Your task to perform on an android device: Search for a home improvement project you can do. Image 0: 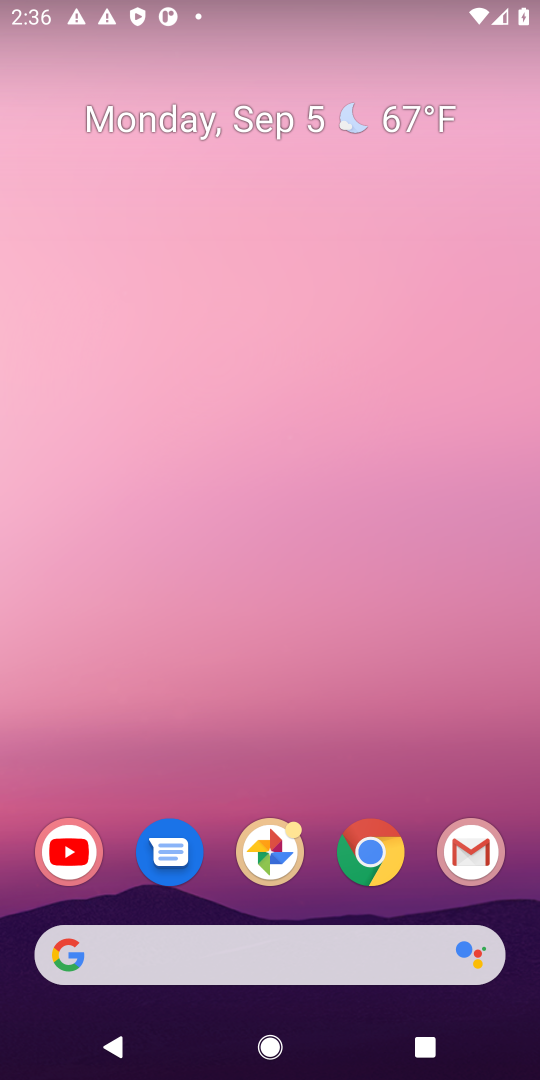
Step 0: click (376, 857)
Your task to perform on an android device: Search for a home improvement project you can do. Image 1: 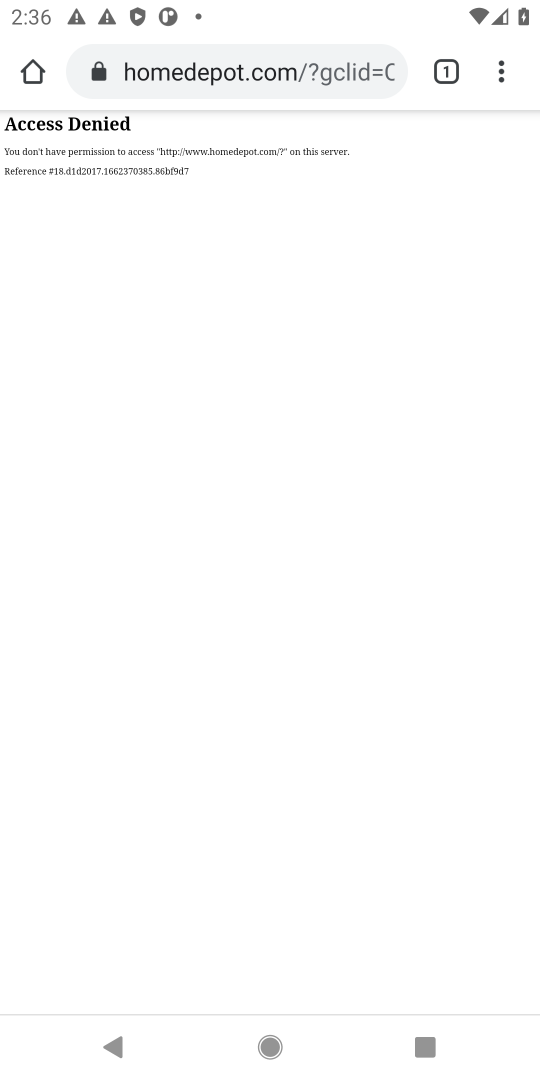
Step 1: click (269, 51)
Your task to perform on an android device: Search for a home improvement project you can do. Image 2: 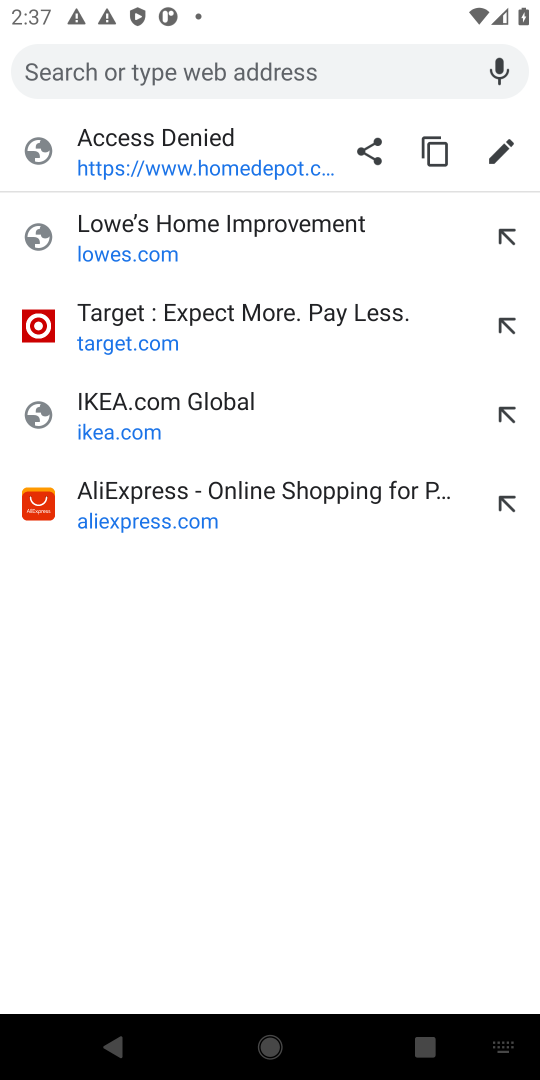
Step 2: type "home improvement project"
Your task to perform on an android device: Search for a home improvement project you can do. Image 3: 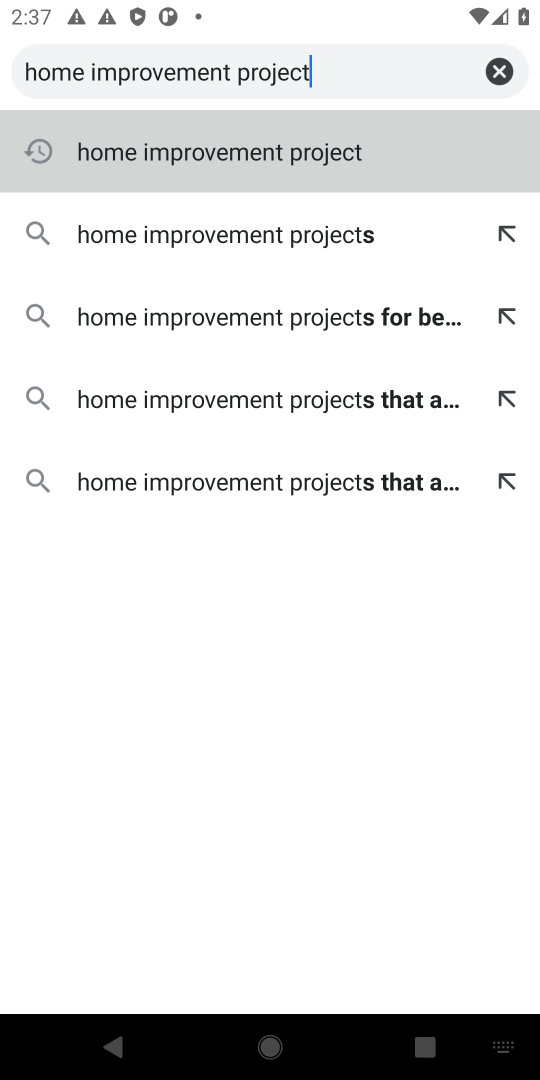
Step 3: click (156, 146)
Your task to perform on an android device: Search for a home improvement project you can do. Image 4: 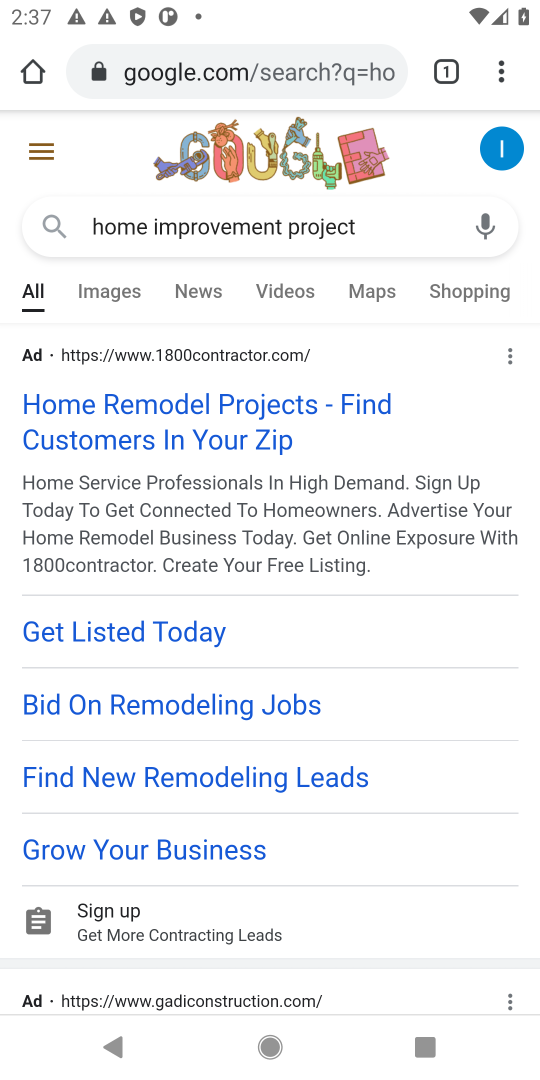
Step 4: drag from (290, 657) to (279, 107)
Your task to perform on an android device: Search for a home improvement project you can do. Image 5: 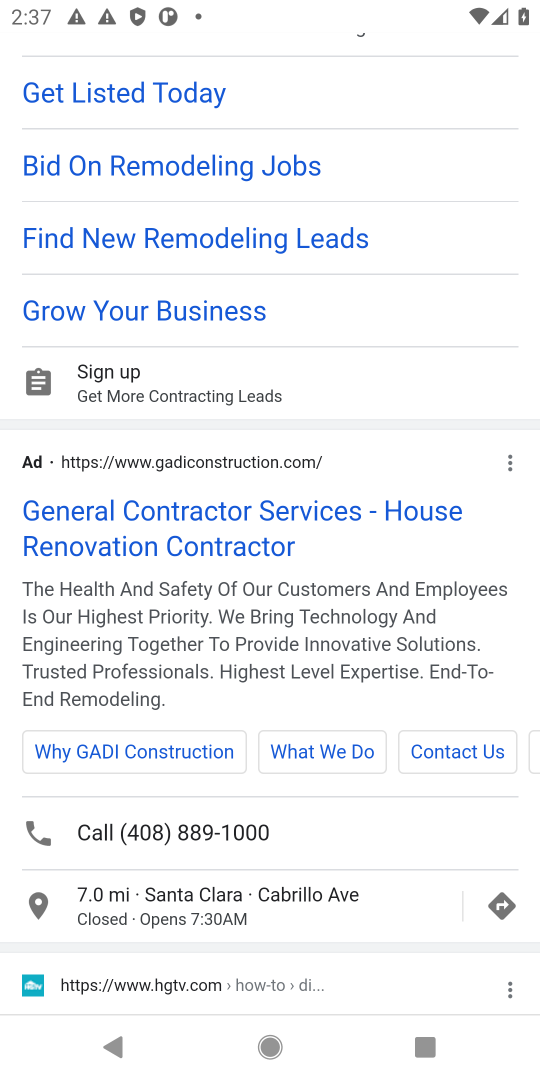
Step 5: drag from (229, 721) to (238, 141)
Your task to perform on an android device: Search for a home improvement project you can do. Image 6: 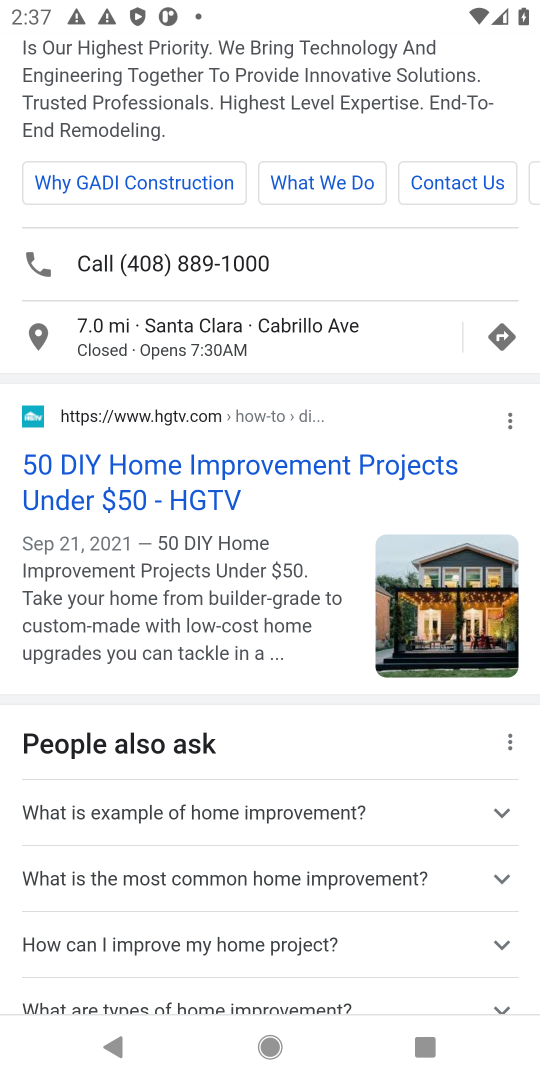
Step 6: click (167, 458)
Your task to perform on an android device: Search for a home improvement project you can do. Image 7: 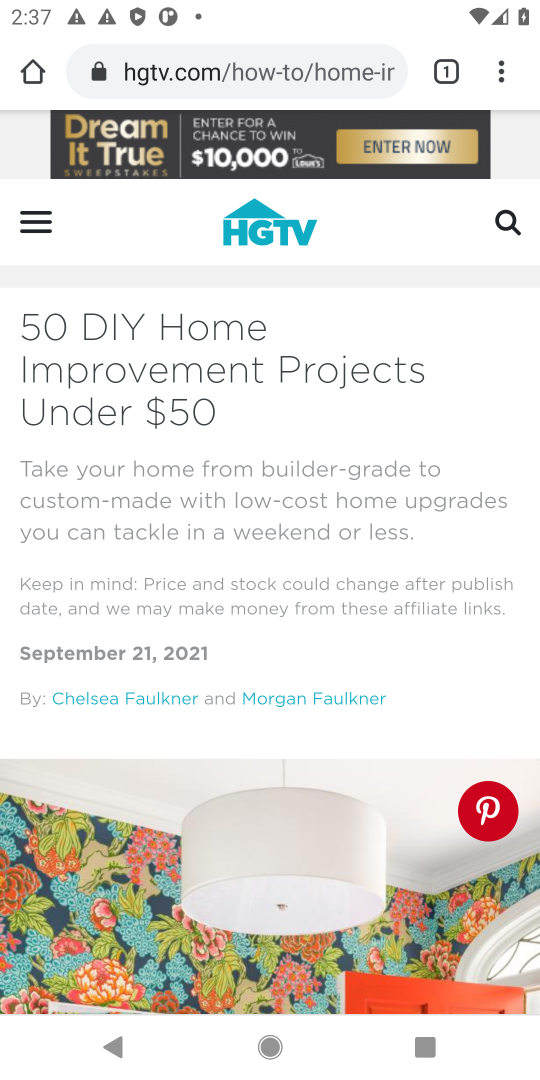
Step 7: drag from (440, 714) to (387, 192)
Your task to perform on an android device: Search for a home improvement project you can do. Image 8: 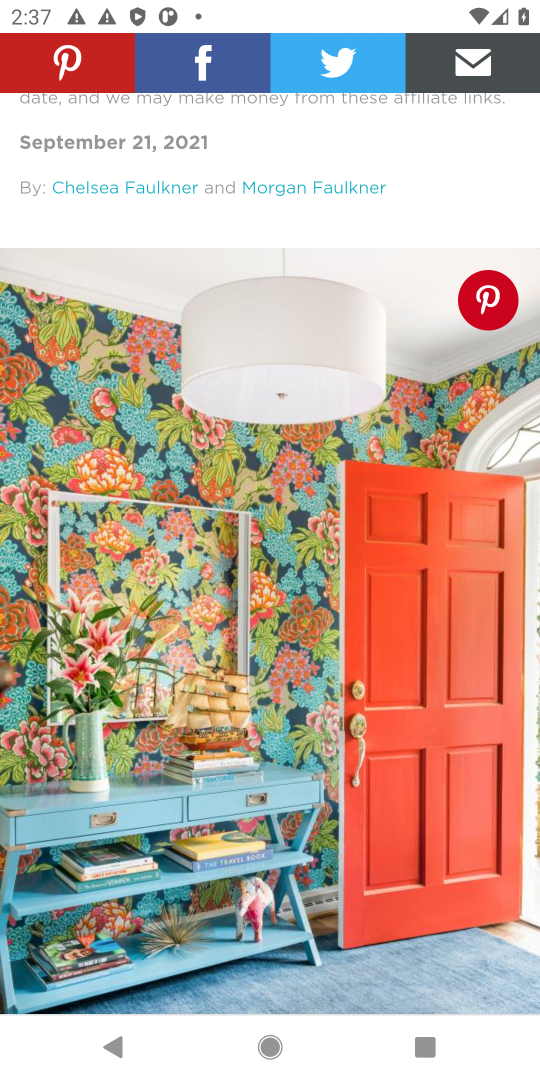
Step 8: drag from (336, 453) to (319, 133)
Your task to perform on an android device: Search for a home improvement project you can do. Image 9: 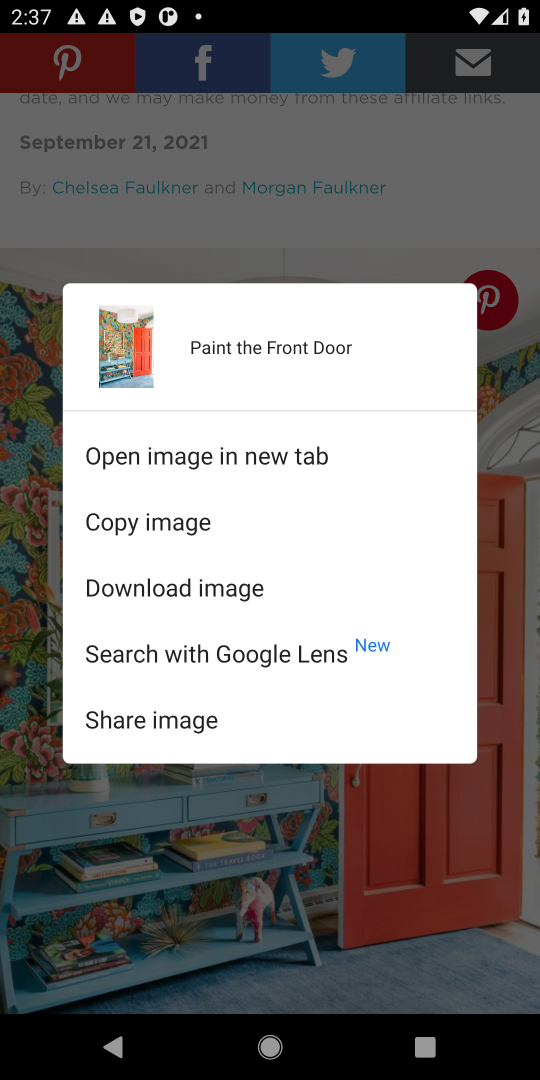
Step 9: click (365, 915)
Your task to perform on an android device: Search for a home improvement project you can do. Image 10: 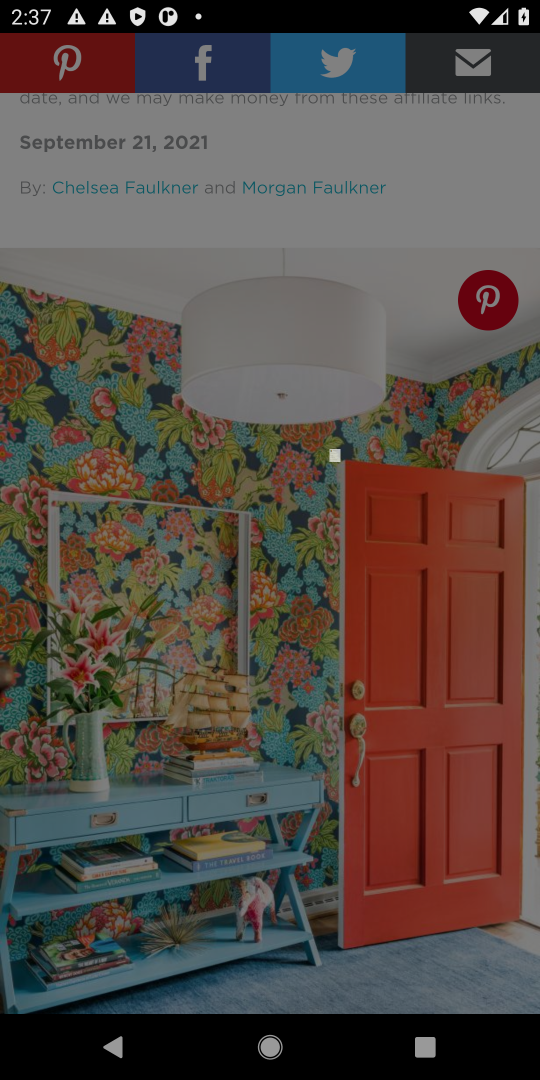
Step 10: task complete